Your task to perform on an android device: delete browsing data in the chrome app Image 0: 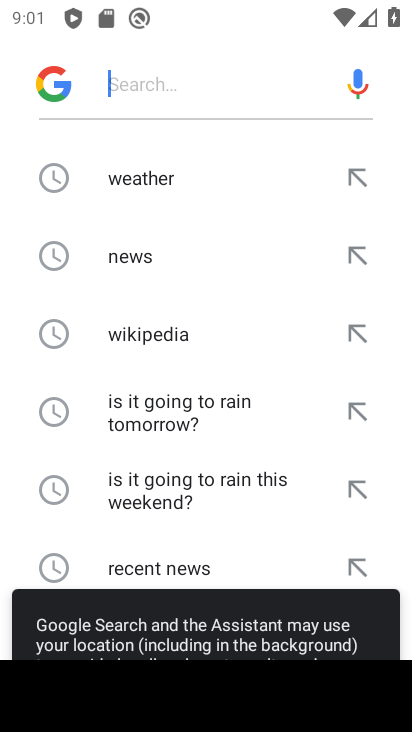
Step 0: press home button
Your task to perform on an android device: delete browsing data in the chrome app Image 1: 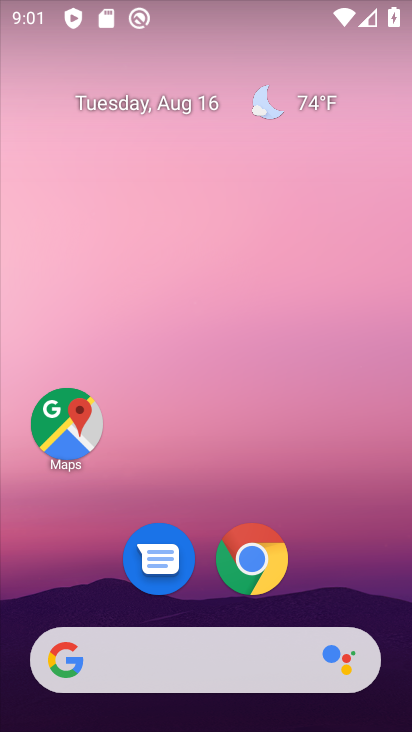
Step 1: click (252, 560)
Your task to perform on an android device: delete browsing data in the chrome app Image 2: 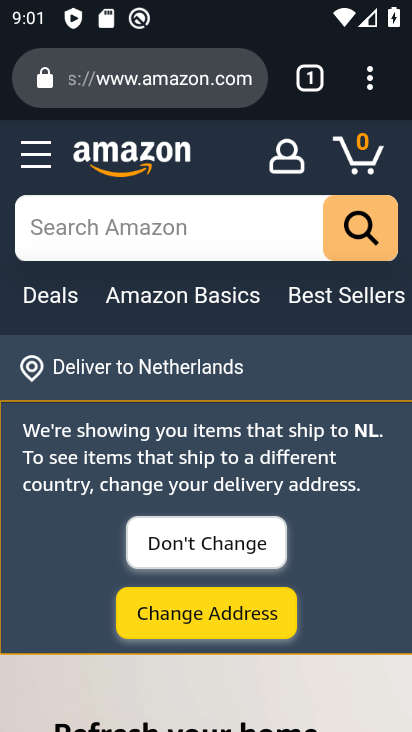
Step 2: click (382, 83)
Your task to perform on an android device: delete browsing data in the chrome app Image 3: 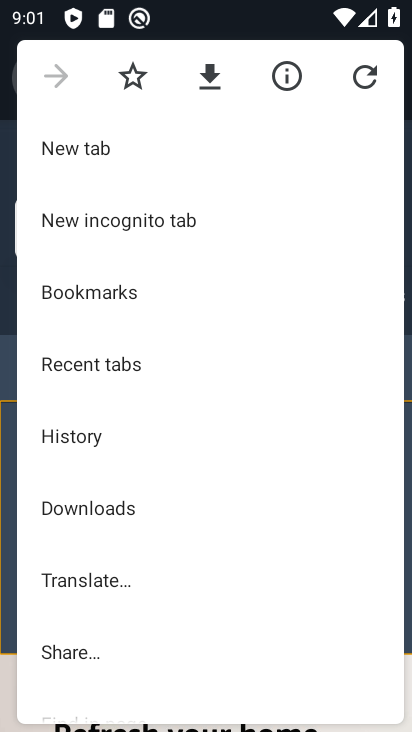
Step 3: drag from (98, 540) to (151, 427)
Your task to perform on an android device: delete browsing data in the chrome app Image 4: 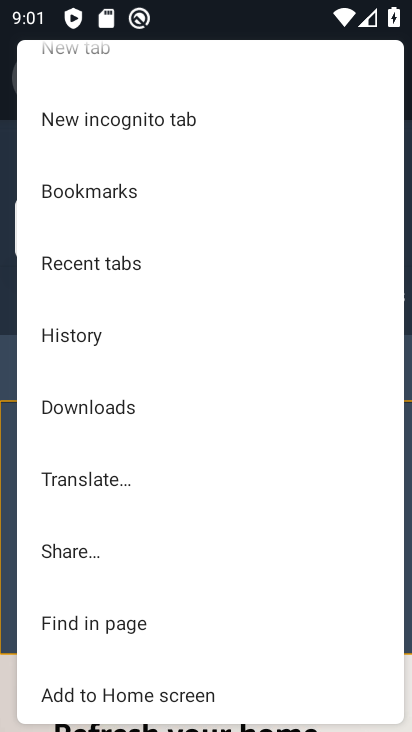
Step 4: drag from (90, 581) to (172, 485)
Your task to perform on an android device: delete browsing data in the chrome app Image 5: 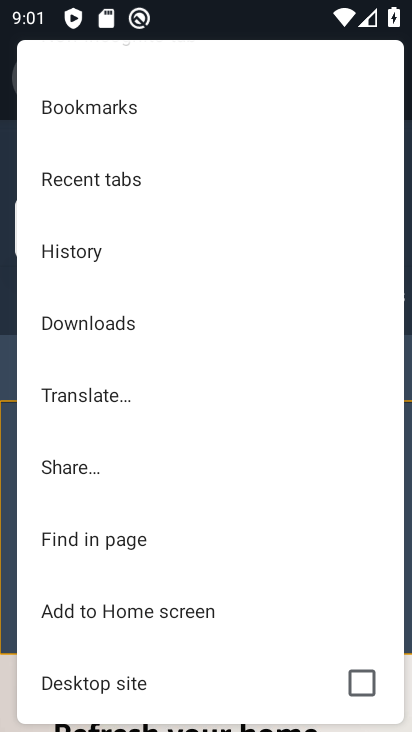
Step 5: drag from (111, 636) to (222, 486)
Your task to perform on an android device: delete browsing data in the chrome app Image 6: 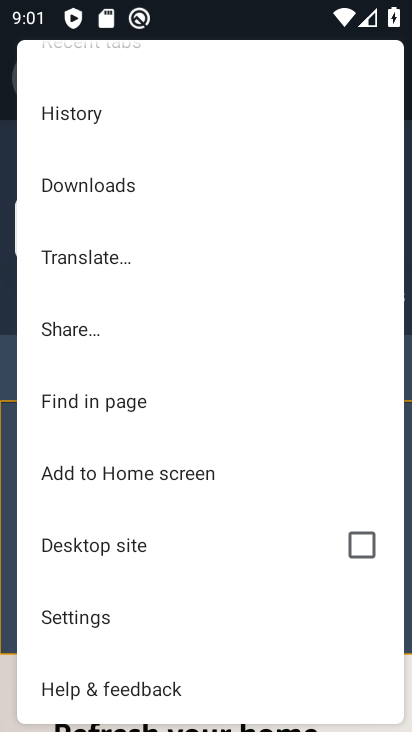
Step 6: click (92, 618)
Your task to perform on an android device: delete browsing data in the chrome app Image 7: 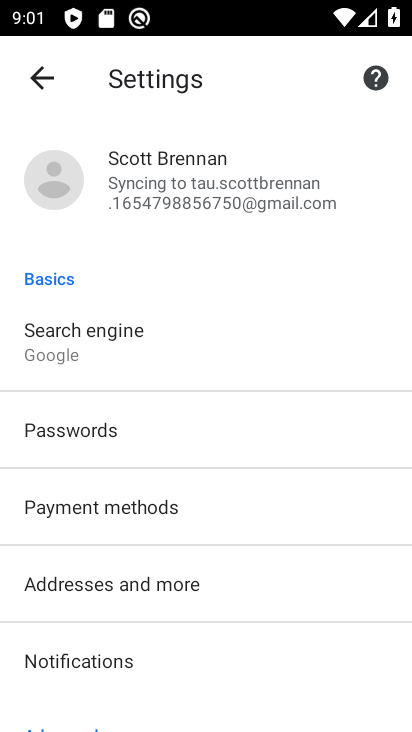
Step 7: drag from (122, 632) to (205, 497)
Your task to perform on an android device: delete browsing data in the chrome app Image 8: 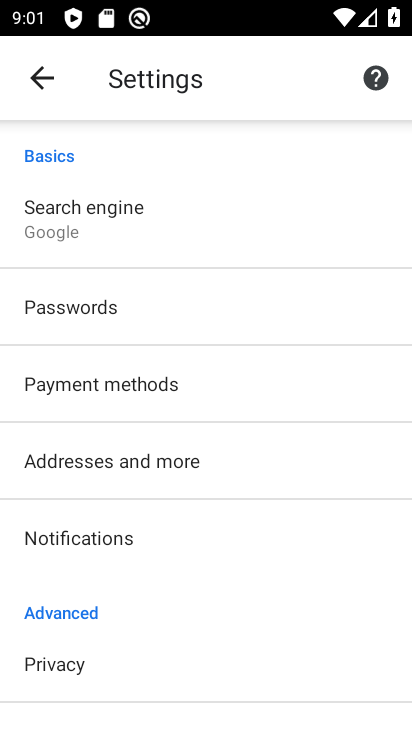
Step 8: click (79, 668)
Your task to perform on an android device: delete browsing data in the chrome app Image 9: 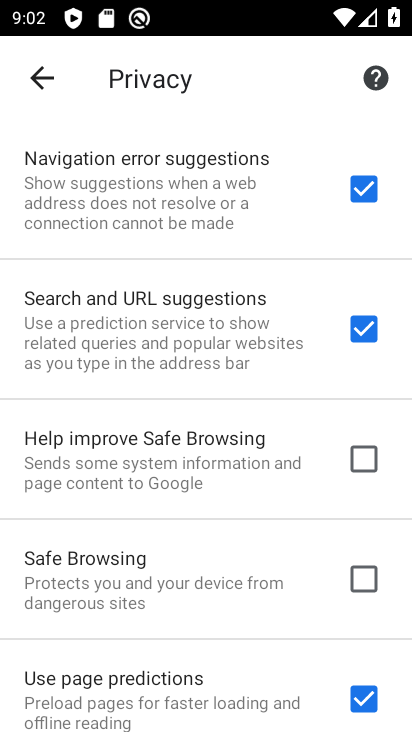
Step 9: drag from (152, 598) to (214, 452)
Your task to perform on an android device: delete browsing data in the chrome app Image 10: 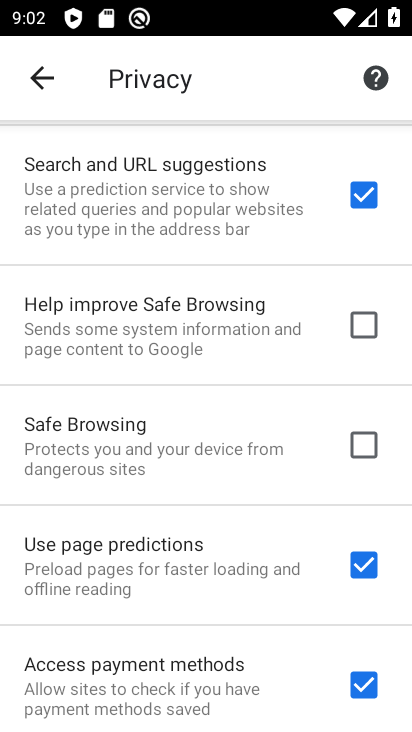
Step 10: drag from (174, 640) to (236, 518)
Your task to perform on an android device: delete browsing data in the chrome app Image 11: 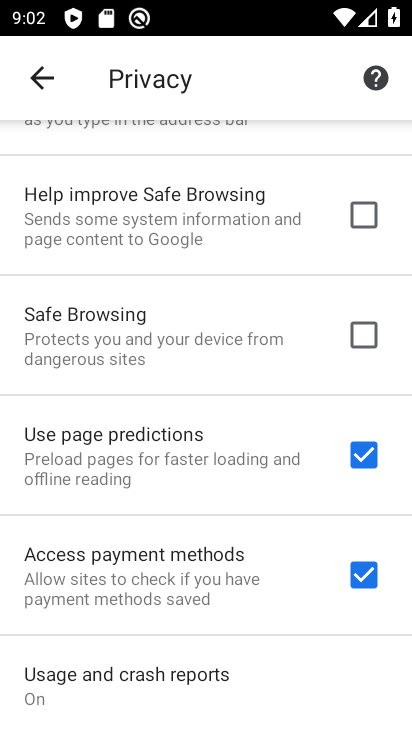
Step 11: drag from (148, 629) to (244, 506)
Your task to perform on an android device: delete browsing data in the chrome app Image 12: 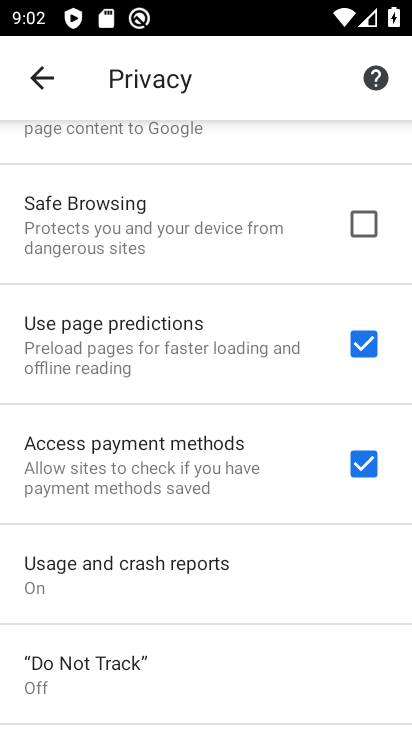
Step 12: drag from (165, 612) to (221, 482)
Your task to perform on an android device: delete browsing data in the chrome app Image 13: 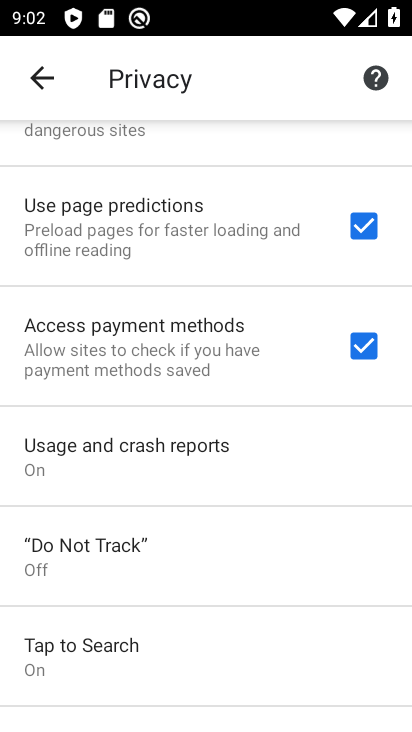
Step 13: drag from (143, 642) to (222, 530)
Your task to perform on an android device: delete browsing data in the chrome app Image 14: 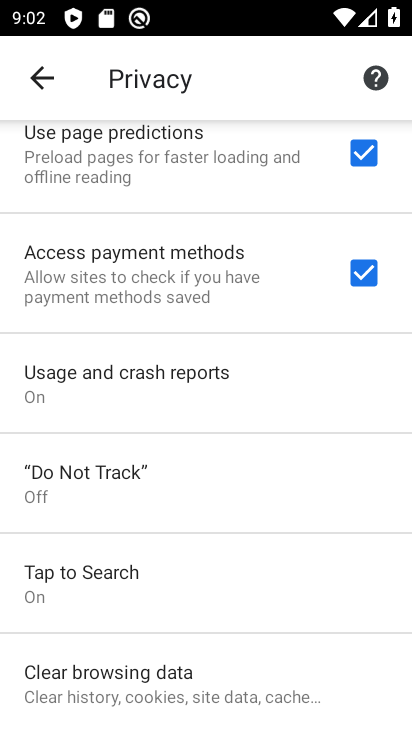
Step 14: click (146, 678)
Your task to perform on an android device: delete browsing data in the chrome app Image 15: 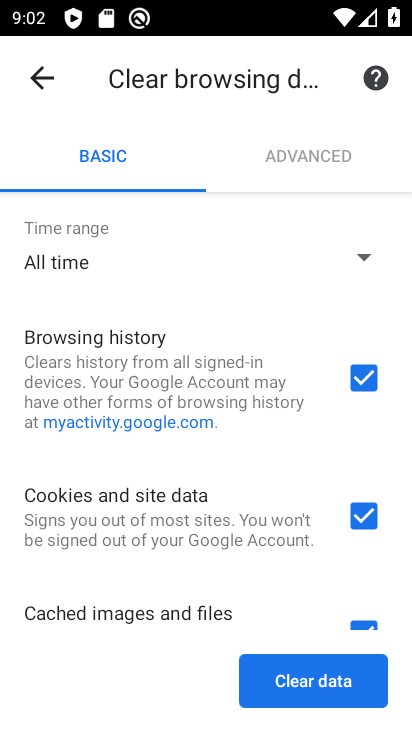
Step 15: click (294, 681)
Your task to perform on an android device: delete browsing data in the chrome app Image 16: 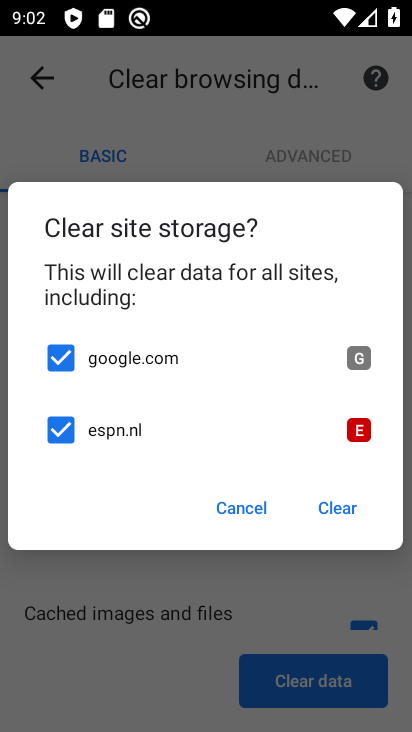
Step 16: click (341, 515)
Your task to perform on an android device: delete browsing data in the chrome app Image 17: 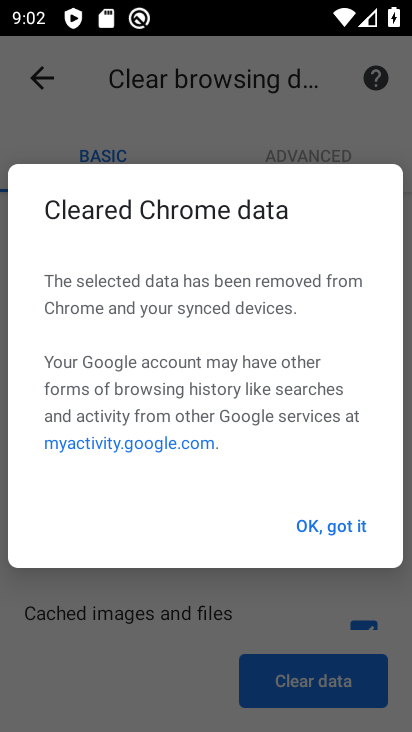
Step 17: click (344, 524)
Your task to perform on an android device: delete browsing data in the chrome app Image 18: 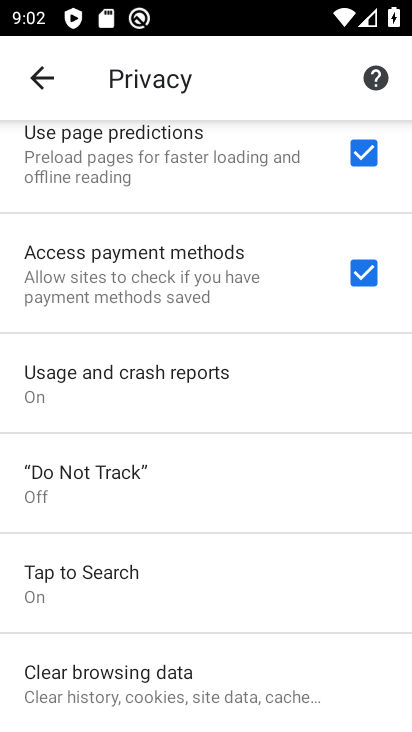
Step 18: task complete